Your task to perform on an android device: Open ESPN.com Image 0: 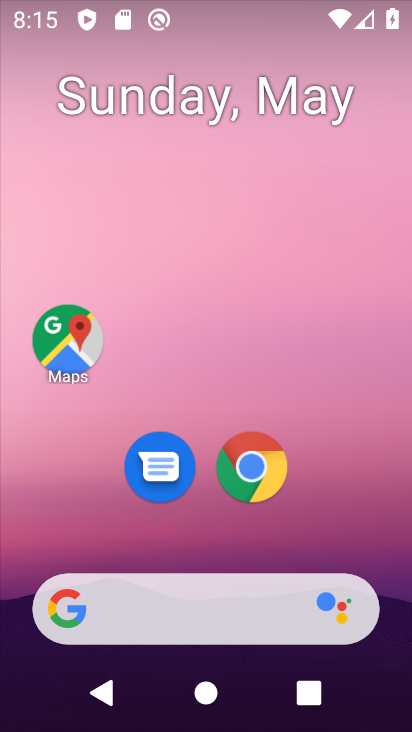
Step 0: click (253, 465)
Your task to perform on an android device: Open ESPN.com Image 1: 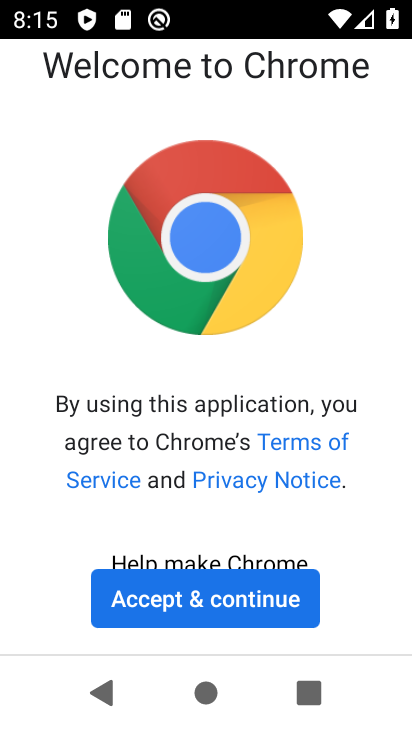
Step 1: click (195, 601)
Your task to perform on an android device: Open ESPN.com Image 2: 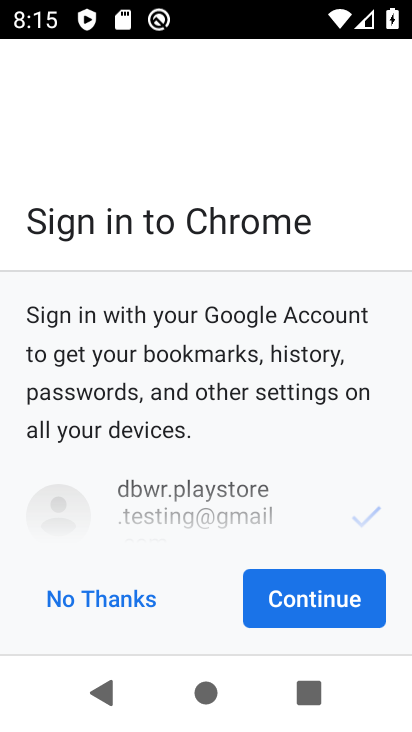
Step 2: click (309, 600)
Your task to perform on an android device: Open ESPN.com Image 3: 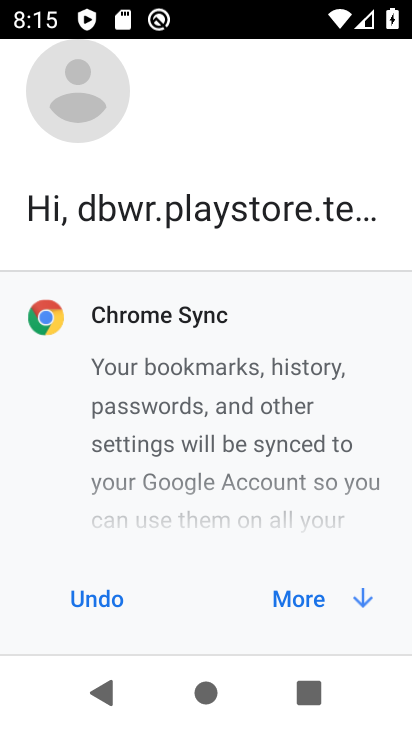
Step 3: click (309, 600)
Your task to perform on an android device: Open ESPN.com Image 4: 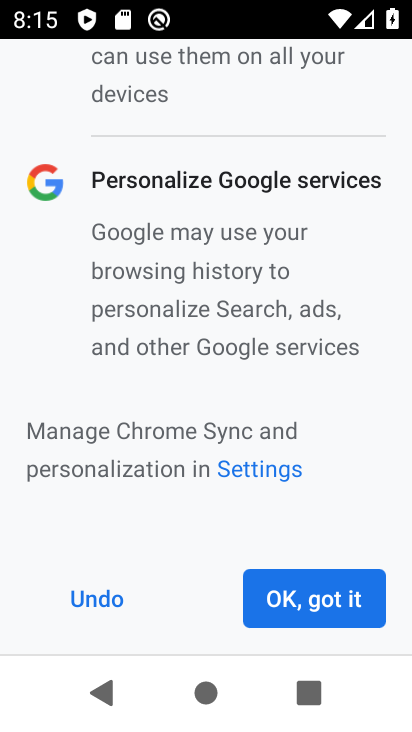
Step 4: click (309, 600)
Your task to perform on an android device: Open ESPN.com Image 5: 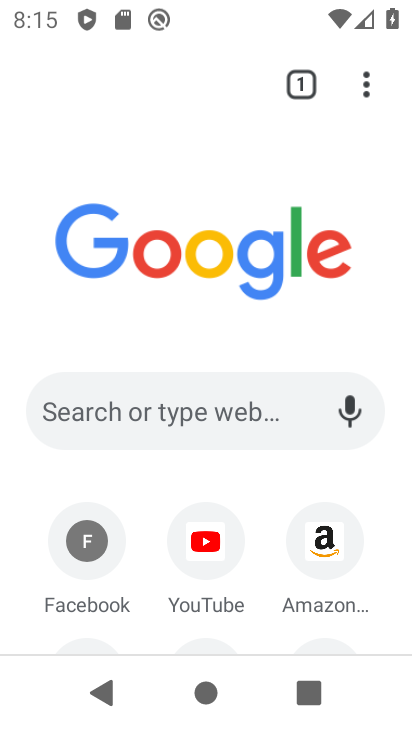
Step 5: click (114, 418)
Your task to perform on an android device: Open ESPN.com Image 6: 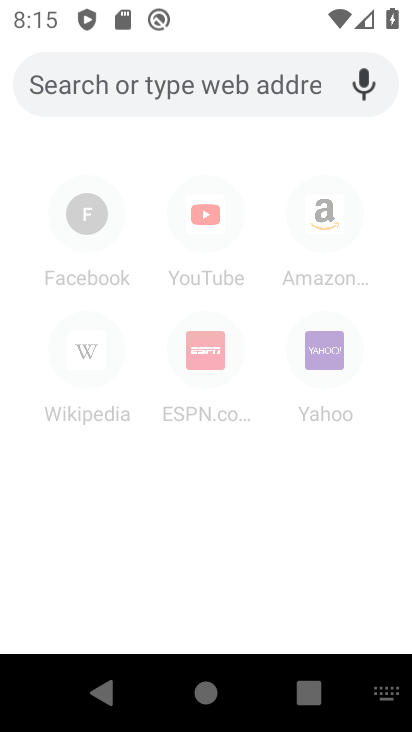
Step 6: type "espn.com"
Your task to perform on an android device: Open ESPN.com Image 7: 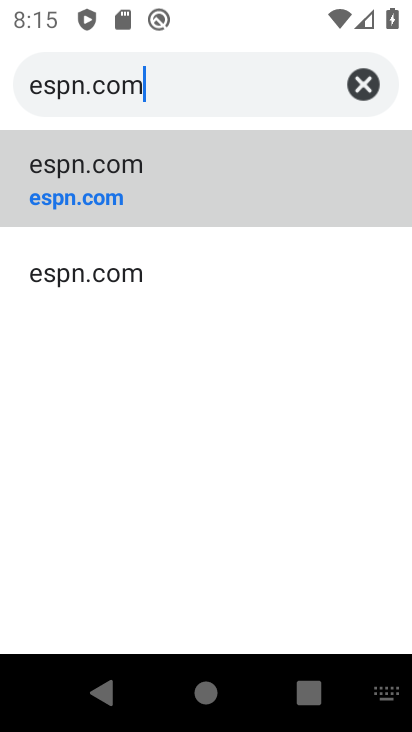
Step 7: click (48, 169)
Your task to perform on an android device: Open ESPN.com Image 8: 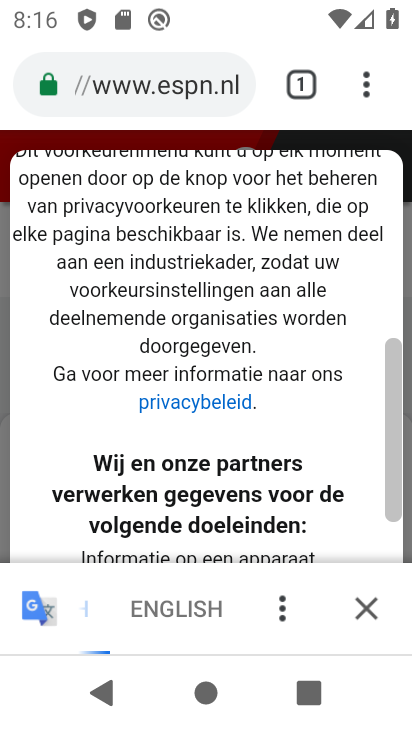
Step 8: task complete